Your task to perform on an android device: turn on sleep mode Image 0: 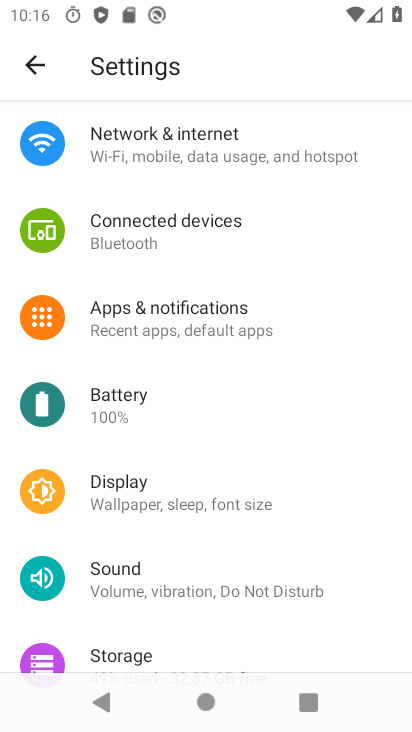
Step 0: click (218, 499)
Your task to perform on an android device: turn on sleep mode Image 1: 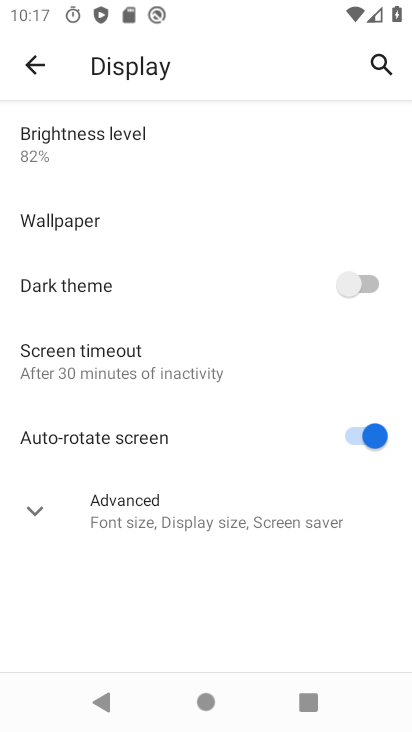
Step 1: click (213, 374)
Your task to perform on an android device: turn on sleep mode Image 2: 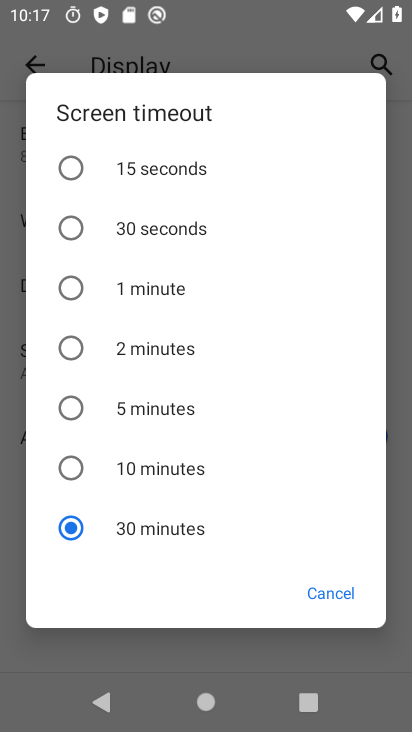
Step 2: task complete